Your task to perform on an android device: read, delete, or share a saved page in the chrome app Image 0: 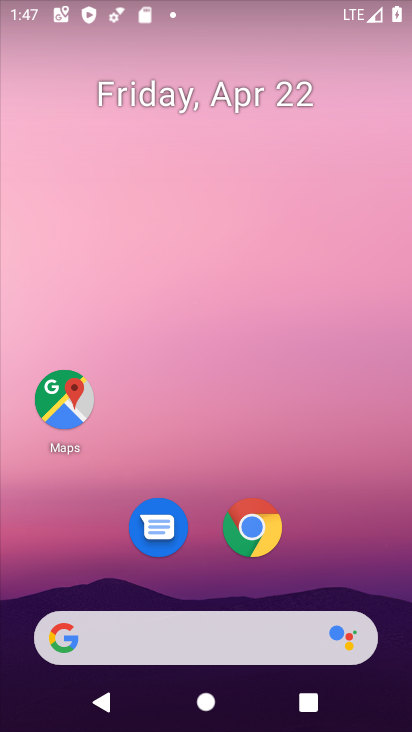
Step 0: drag from (331, 563) to (331, 174)
Your task to perform on an android device: read, delete, or share a saved page in the chrome app Image 1: 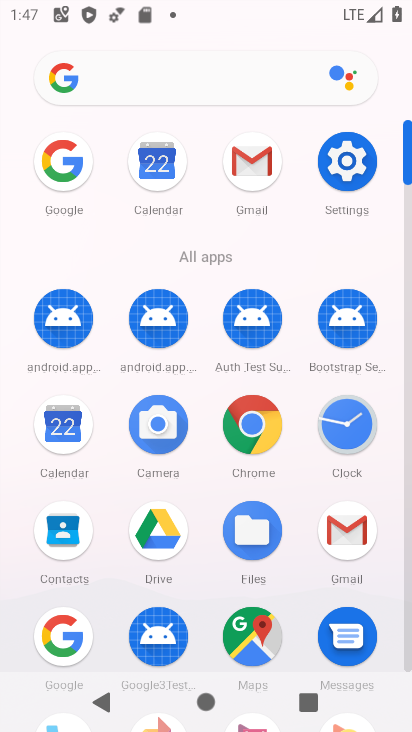
Step 1: click (252, 428)
Your task to perform on an android device: read, delete, or share a saved page in the chrome app Image 2: 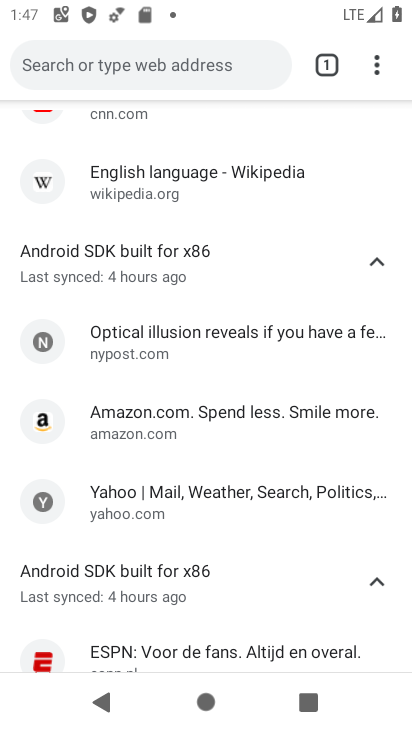
Step 2: drag from (383, 67) to (163, 251)
Your task to perform on an android device: read, delete, or share a saved page in the chrome app Image 3: 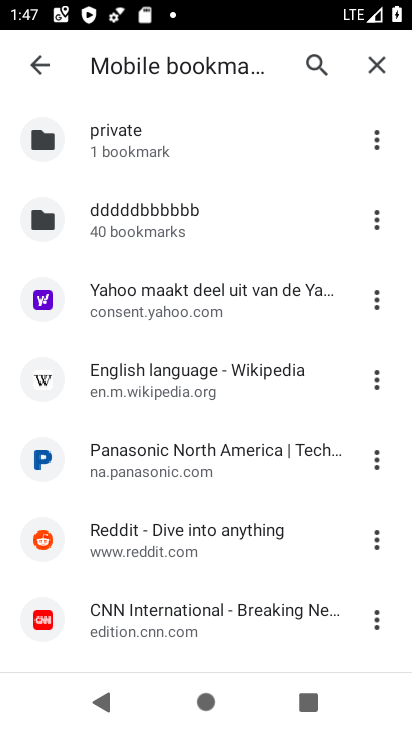
Step 3: click (377, 461)
Your task to perform on an android device: read, delete, or share a saved page in the chrome app Image 4: 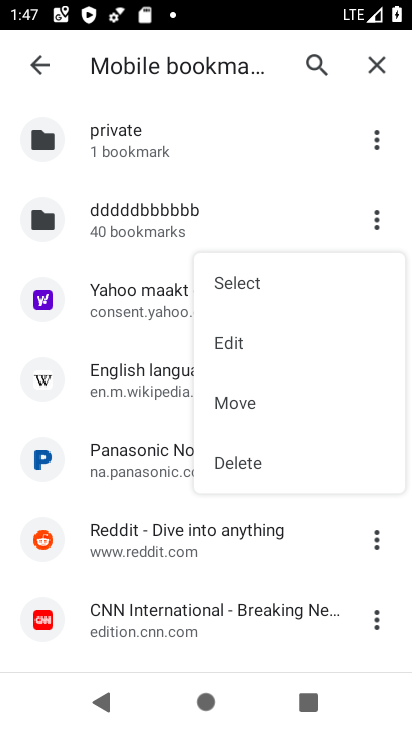
Step 4: click (291, 464)
Your task to perform on an android device: read, delete, or share a saved page in the chrome app Image 5: 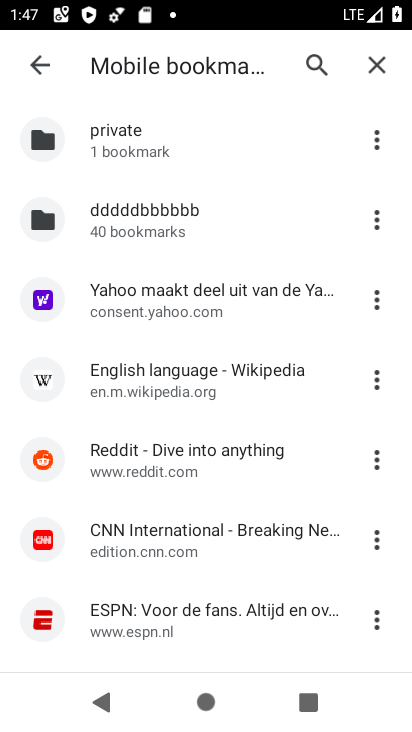
Step 5: task complete